Your task to perform on an android device: open the mobile data screen to see how much data has been used Image 0: 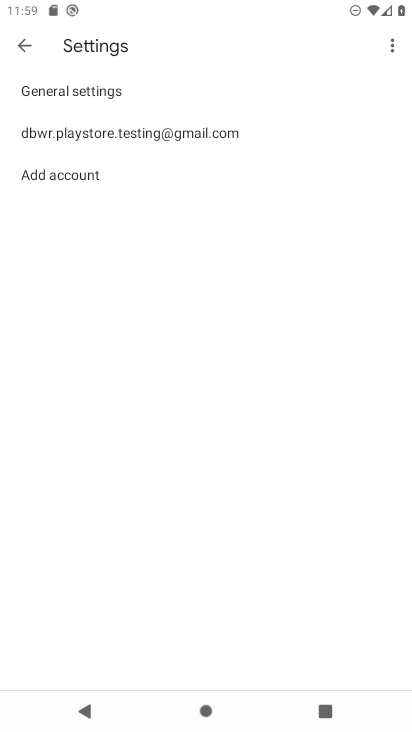
Step 0: press home button
Your task to perform on an android device: open the mobile data screen to see how much data has been used Image 1: 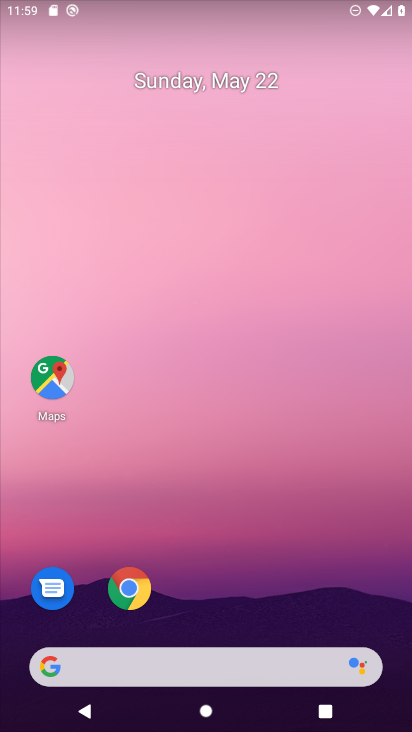
Step 1: drag from (228, 593) to (243, 252)
Your task to perform on an android device: open the mobile data screen to see how much data has been used Image 2: 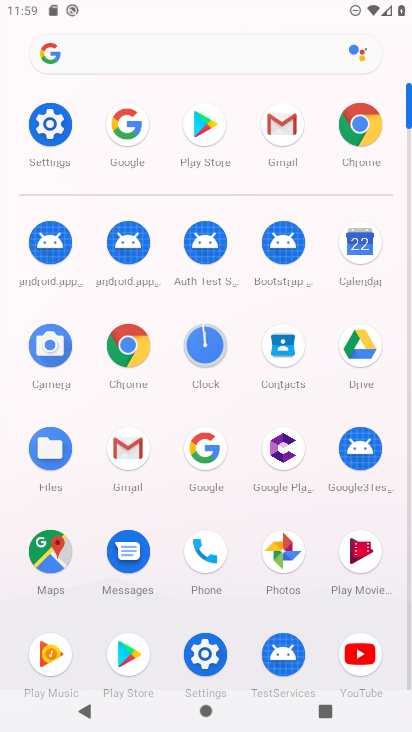
Step 2: click (54, 133)
Your task to perform on an android device: open the mobile data screen to see how much data has been used Image 3: 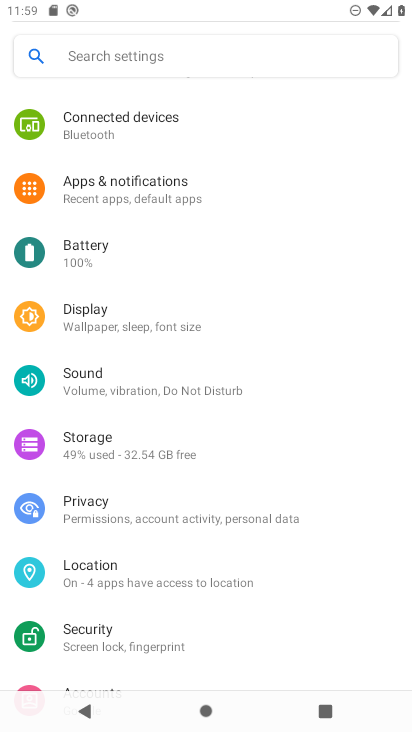
Step 3: drag from (132, 118) to (144, 393)
Your task to perform on an android device: open the mobile data screen to see how much data has been used Image 4: 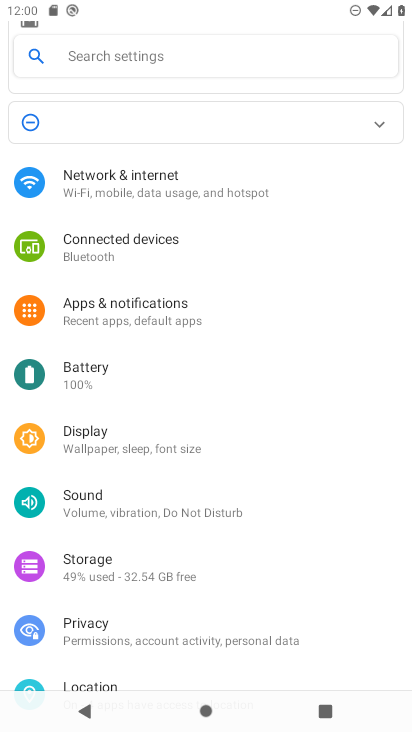
Step 4: click (167, 178)
Your task to perform on an android device: open the mobile data screen to see how much data has been used Image 5: 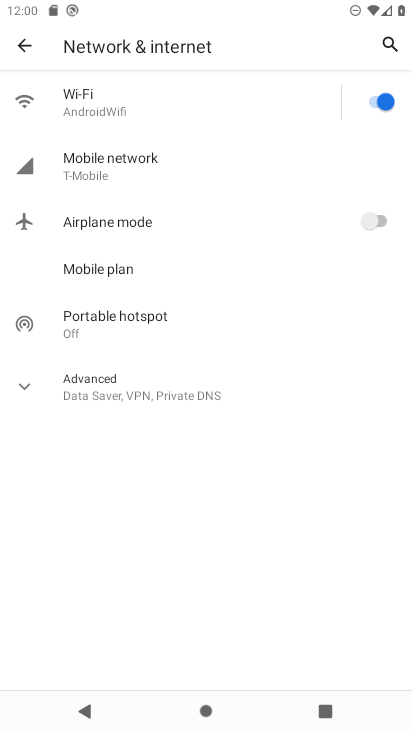
Step 5: click (118, 392)
Your task to perform on an android device: open the mobile data screen to see how much data has been used Image 6: 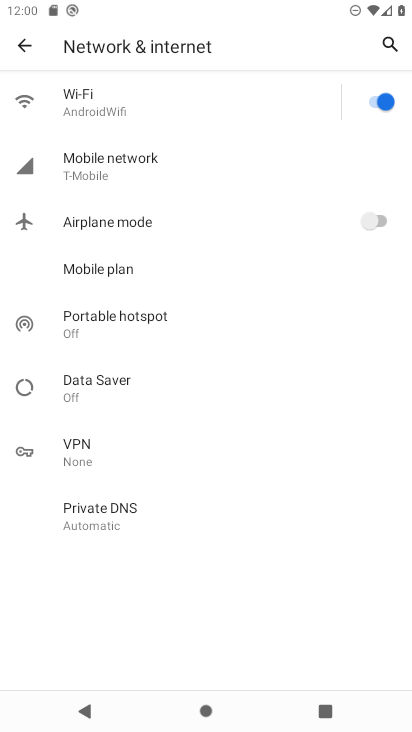
Step 6: click (124, 170)
Your task to perform on an android device: open the mobile data screen to see how much data has been used Image 7: 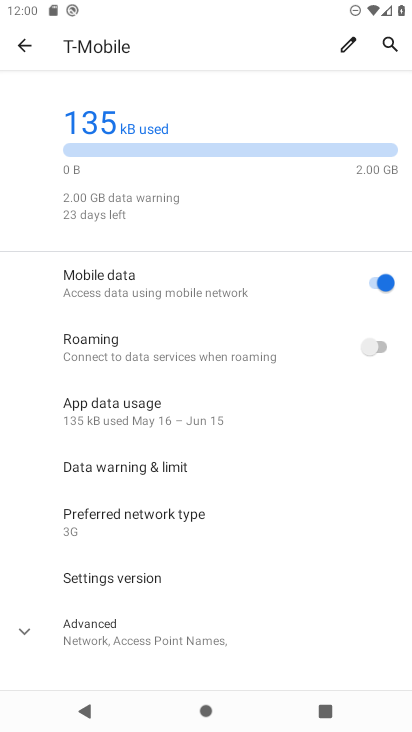
Step 7: task complete